Your task to perform on an android device: Open calendar and show me the second week of next month Image 0: 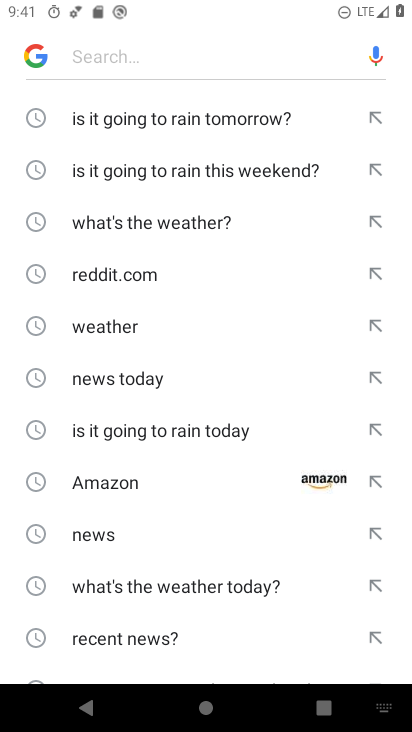
Step 0: press home button
Your task to perform on an android device: Open calendar and show me the second week of next month Image 1: 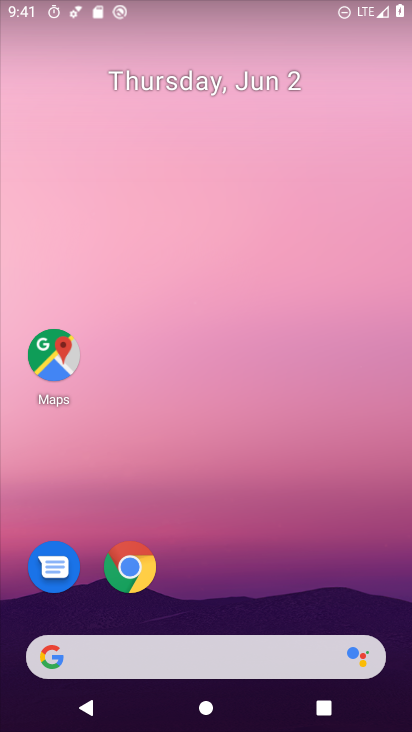
Step 1: drag from (354, 546) to (335, 59)
Your task to perform on an android device: Open calendar and show me the second week of next month Image 2: 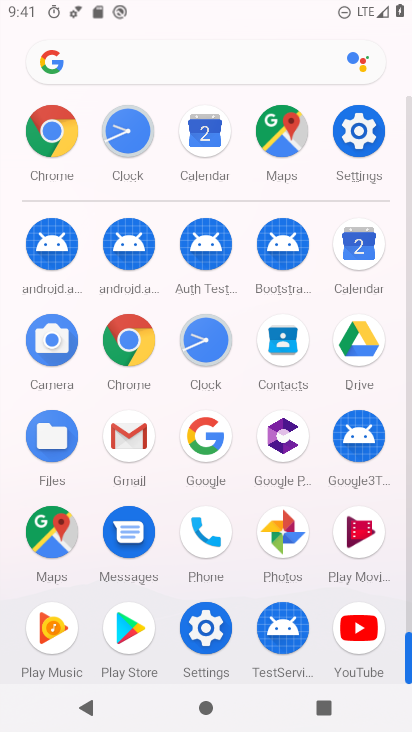
Step 2: click (355, 241)
Your task to perform on an android device: Open calendar and show me the second week of next month Image 3: 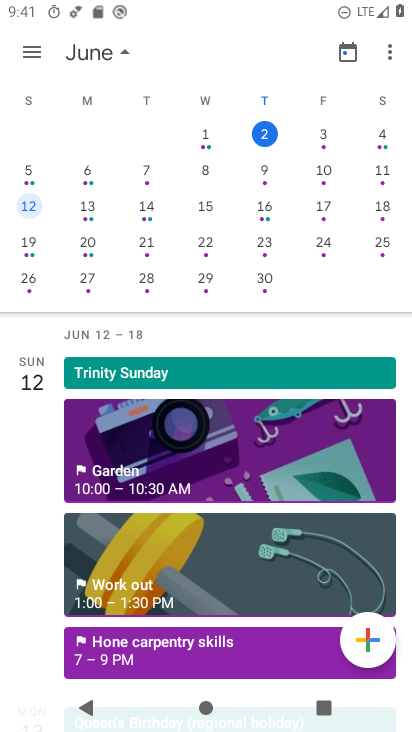
Step 3: drag from (266, 656) to (283, 372)
Your task to perform on an android device: Open calendar and show me the second week of next month Image 4: 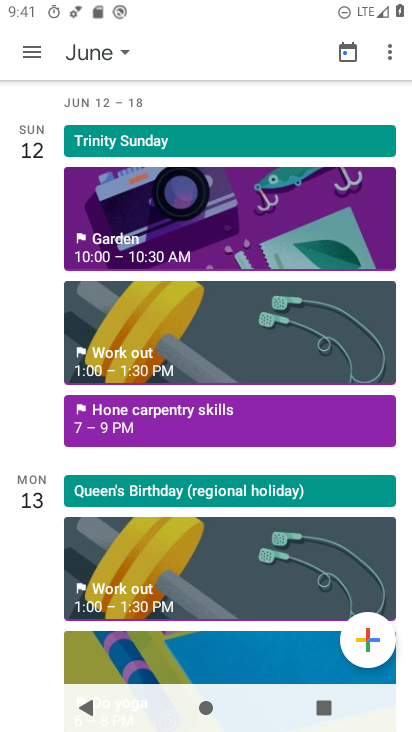
Step 4: drag from (302, 302) to (279, 575)
Your task to perform on an android device: Open calendar and show me the second week of next month Image 5: 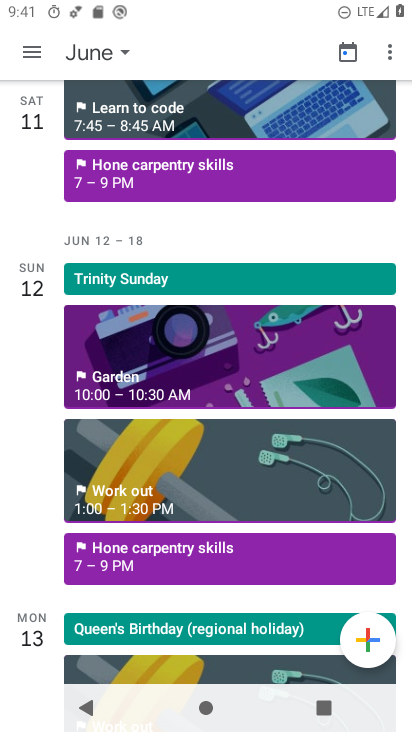
Step 5: drag from (243, 216) to (233, 541)
Your task to perform on an android device: Open calendar and show me the second week of next month Image 6: 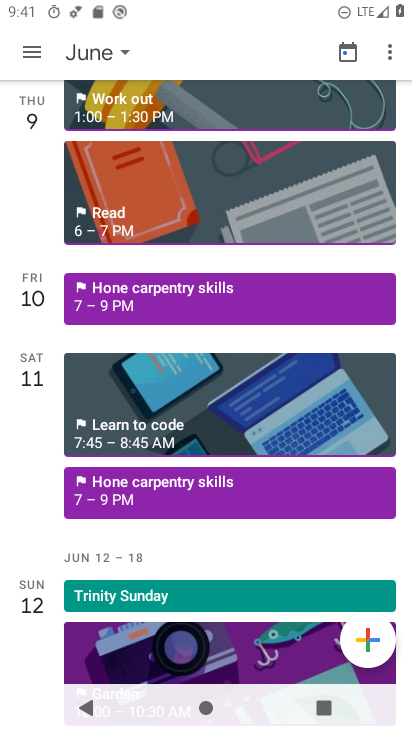
Step 6: drag from (252, 255) to (258, 590)
Your task to perform on an android device: Open calendar and show me the second week of next month Image 7: 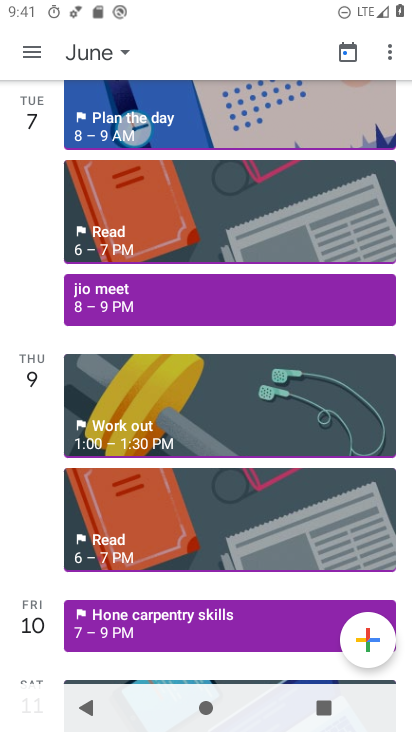
Step 7: drag from (281, 627) to (271, 237)
Your task to perform on an android device: Open calendar and show me the second week of next month Image 8: 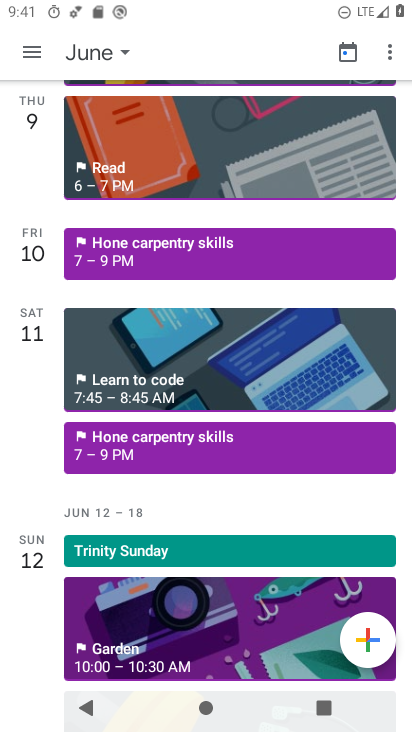
Step 8: drag from (251, 590) to (262, 268)
Your task to perform on an android device: Open calendar and show me the second week of next month Image 9: 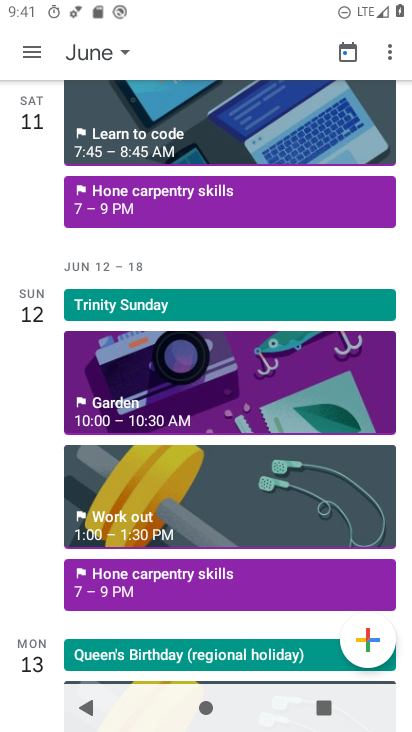
Step 9: click (92, 61)
Your task to perform on an android device: Open calendar and show me the second week of next month Image 10: 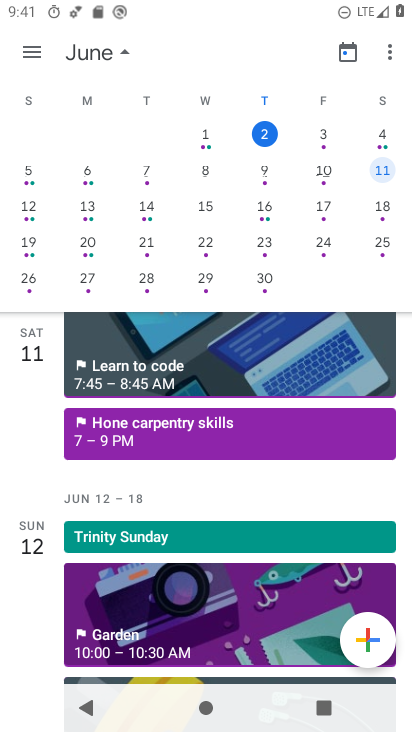
Step 10: click (22, 176)
Your task to perform on an android device: Open calendar and show me the second week of next month Image 11: 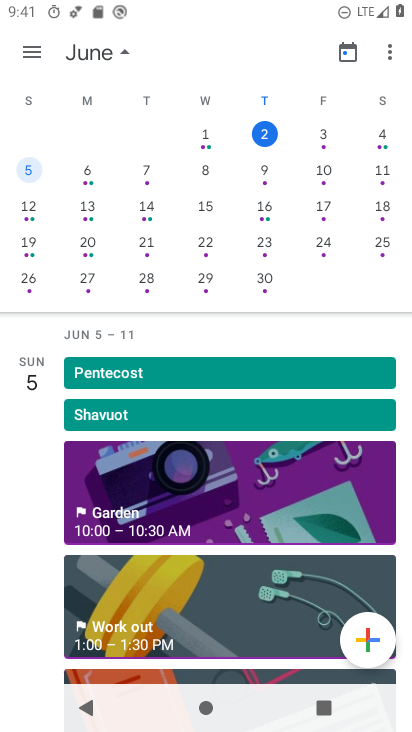
Step 11: task complete